Your task to perform on an android device: move a message to another label in the gmail app Image 0: 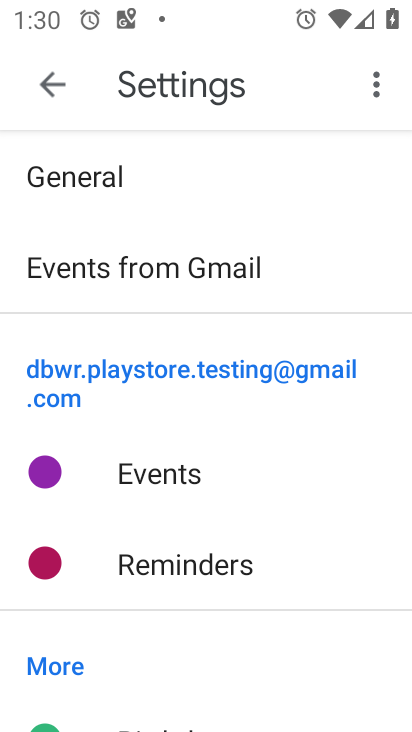
Step 0: press back button
Your task to perform on an android device: move a message to another label in the gmail app Image 1: 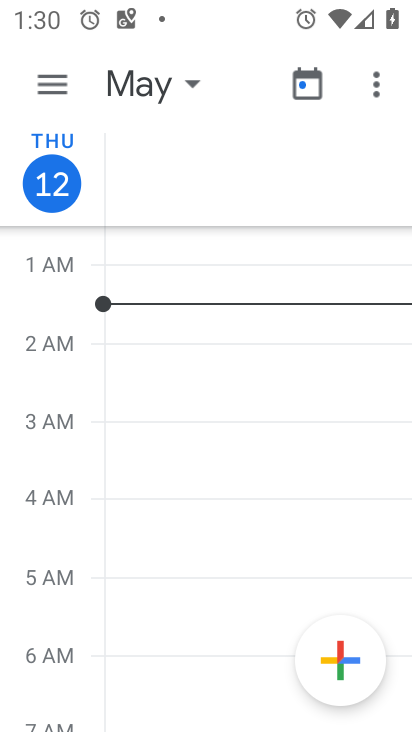
Step 1: press back button
Your task to perform on an android device: move a message to another label in the gmail app Image 2: 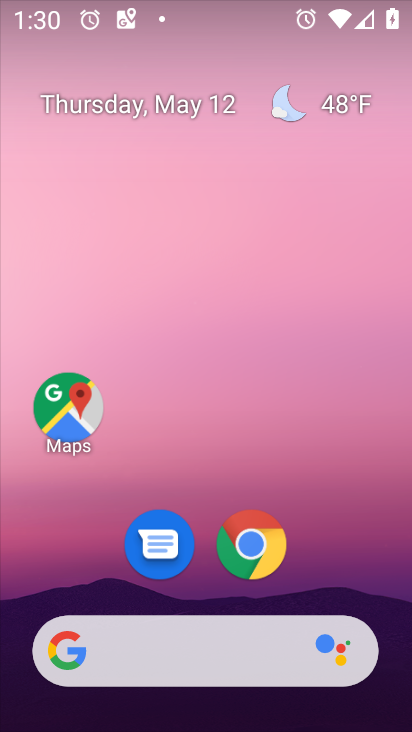
Step 2: drag from (320, 508) to (252, 116)
Your task to perform on an android device: move a message to another label in the gmail app Image 3: 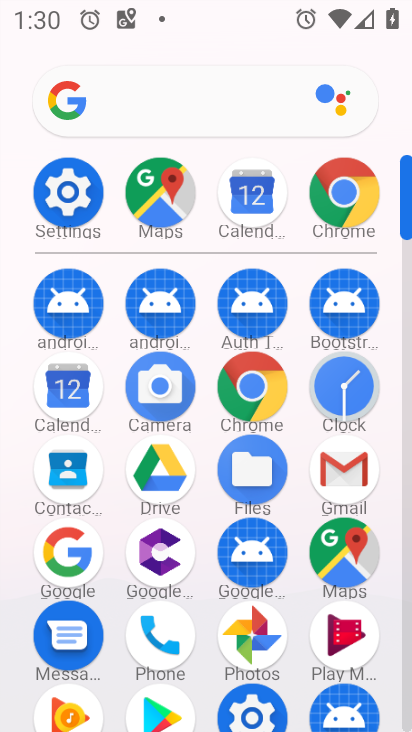
Step 3: drag from (4, 528) to (20, 230)
Your task to perform on an android device: move a message to another label in the gmail app Image 4: 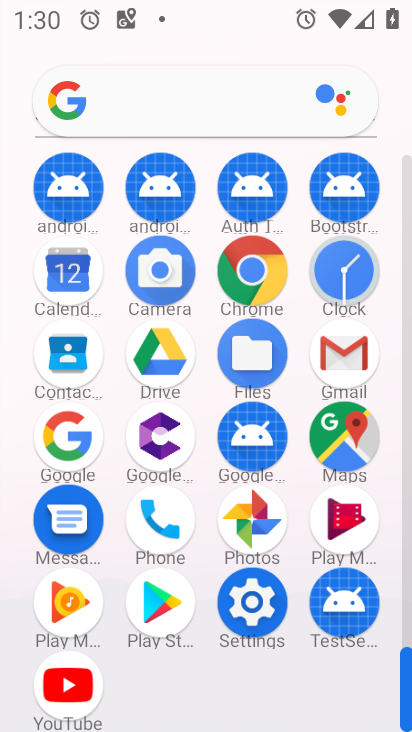
Step 4: click (343, 349)
Your task to perform on an android device: move a message to another label in the gmail app Image 5: 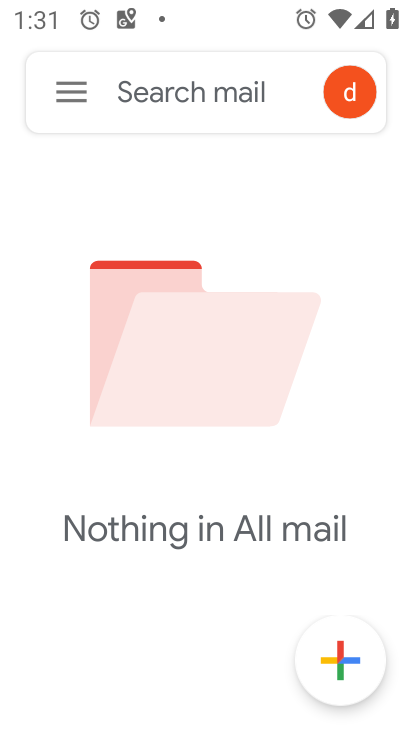
Step 5: click (67, 92)
Your task to perform on an android device: move a message to another label in the gmail app Image 6: 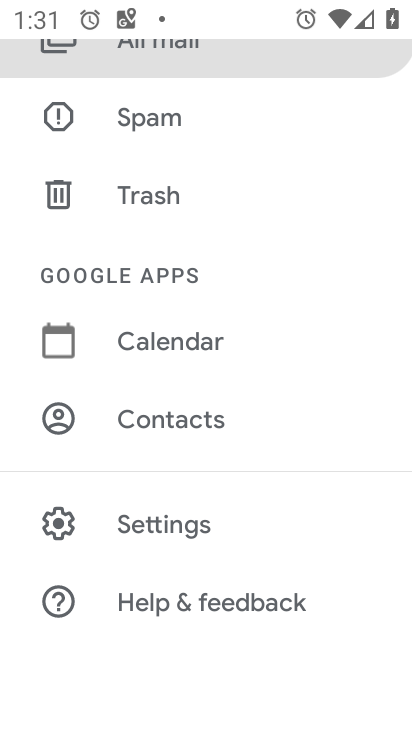
Step 6: drag from (270, 188) to (239, 499)
Your task to perform on an android device: move a message to another label in the gmail app Image 7: 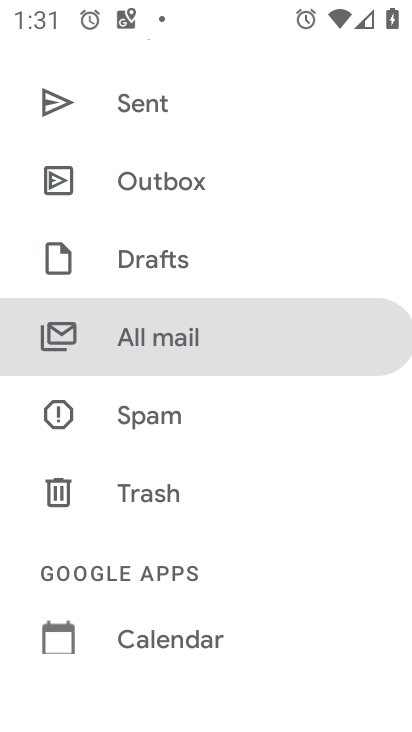
Step 7: click (188, 340)
Your task to perform on an android device: move a message to another label in the gmail app Image 8: 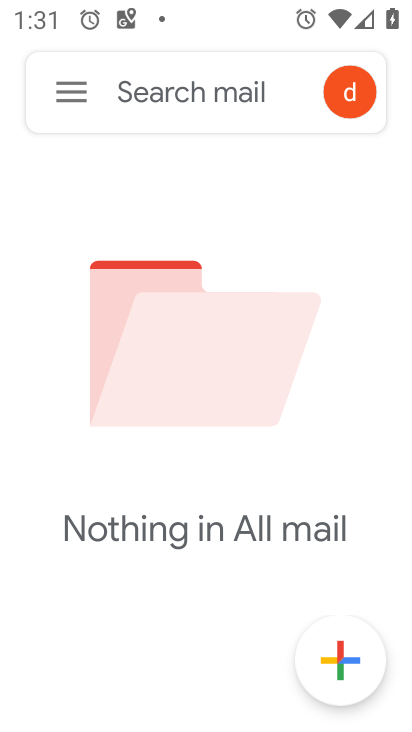
Step 8: click (63, 105)
Your task to perform on an android device: move a message to another label in the gmail app Image 9: 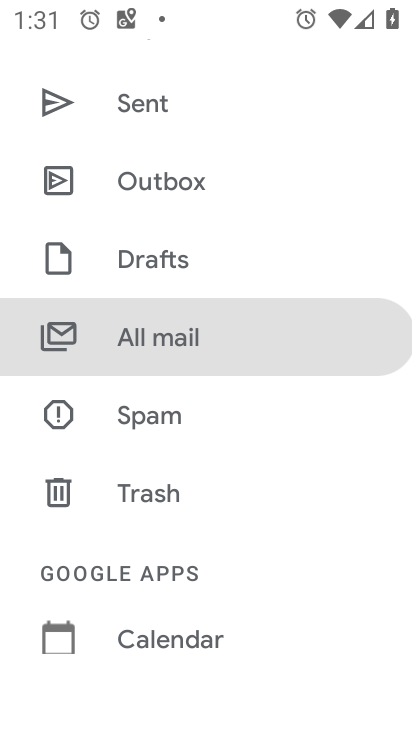
Step 9: task complete